Your task to perform on an android device: Go to Amazon Image 0: 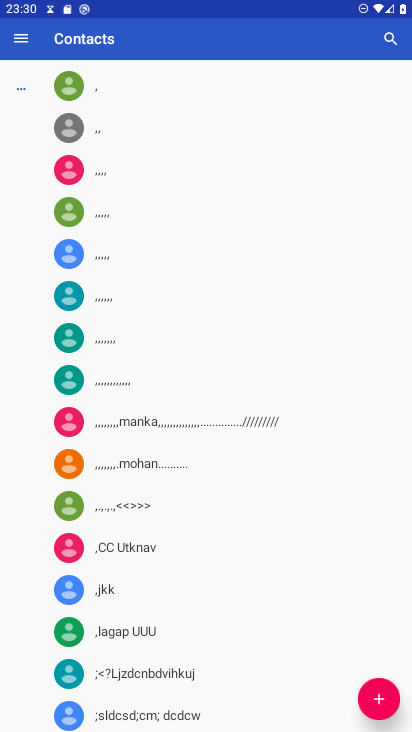
Step 0: press home button
Your task to perform on an android device: Go to Amazon Image 1: 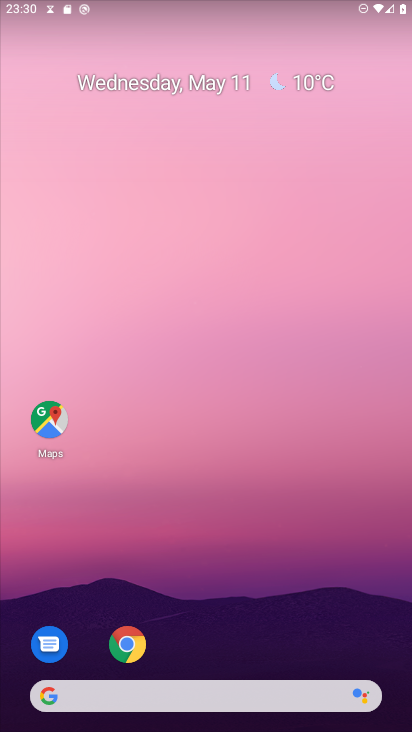
Step 1: click (126, 639)
Your task to perform on an android device: Go to Amazon Image 2: 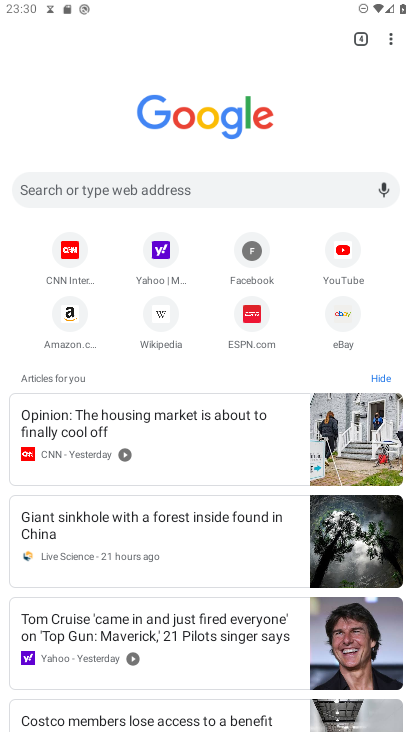
Step 2: click (74, 330)
Your task to perform on an android device: Go to Amazon Image 3: 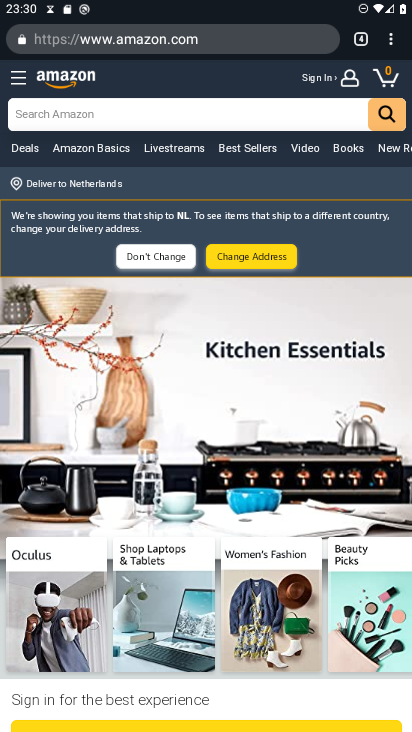
Step 3: task complete